Your task to perform on an android device: clear all cookies in the chrome app Image 0: 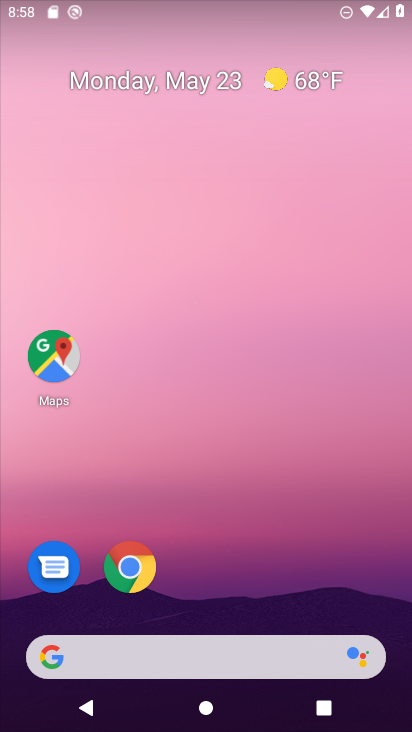
Step 0: drag from (202, 563) to (257, 21)
Your task to perform on an android device: clear all cookies in the chrome app Image 1: 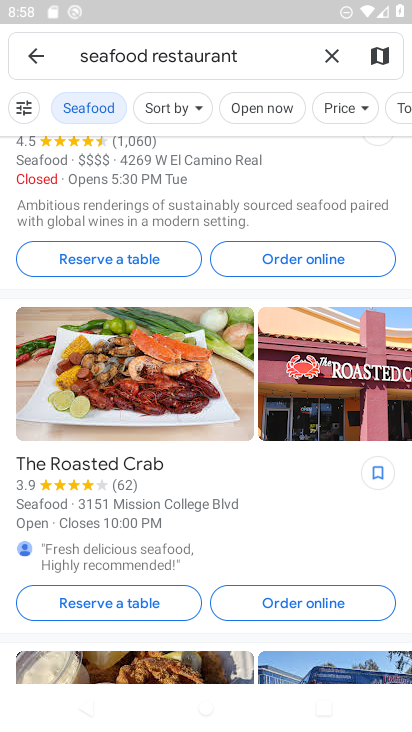
Step 1: press home button
Your task to perform on an android device: clear all cookies in the chrome app Image 2: 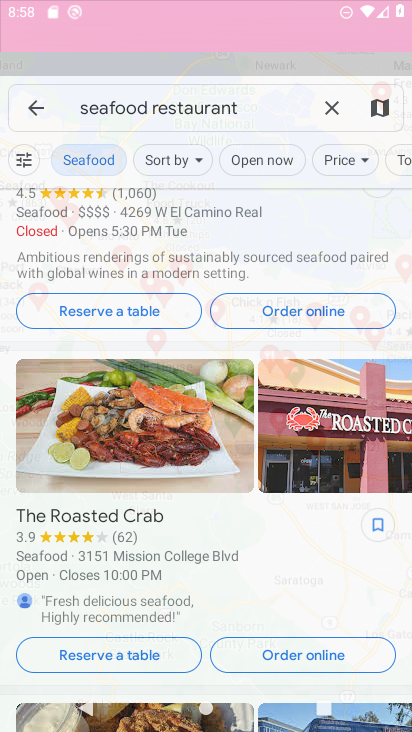
Step 2: drag from (204, 599) to (303, 1)
Your task to perform on an android device: clear all cookies in the chrome app Image 3: 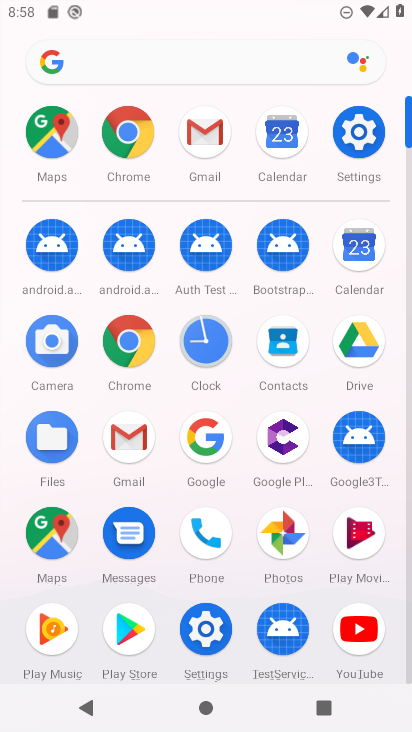
Step 3: click (126, 344)
Your task to perform on an android device: clear all cookies in the chrome app Image 4: 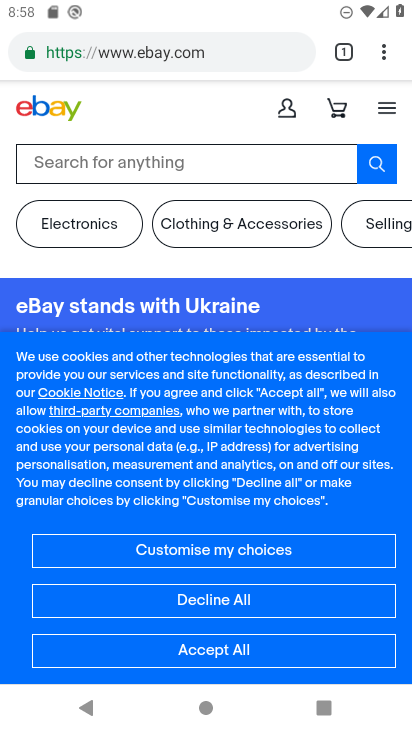
Step 4: click (382, 57)
Your task to perform on an android device: clear all cookies in the chrome app Image 5: 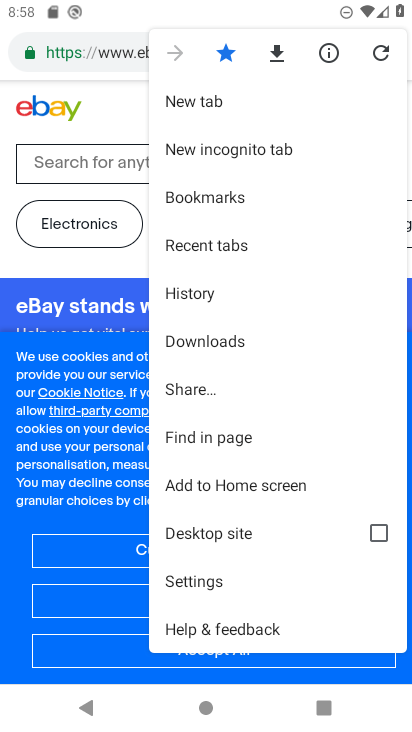
Step 5: click (209, 290)
Your task to perform on an android device: clear all cookies in the chrome app Image 6: 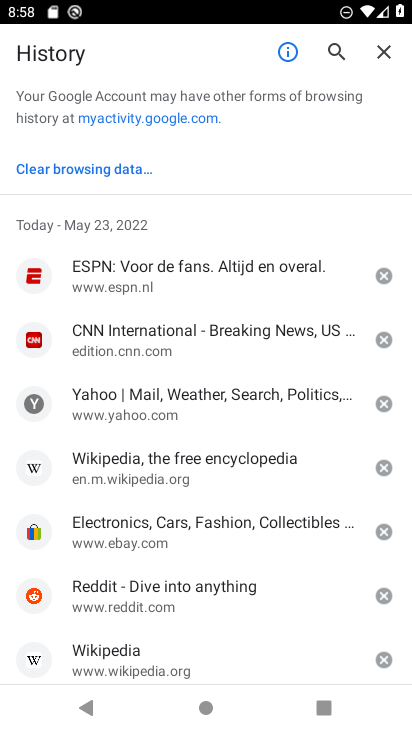
Step 6: click (99, 162)
Your task to perform on an android device: clear all cookies in the chrome app Image 7: 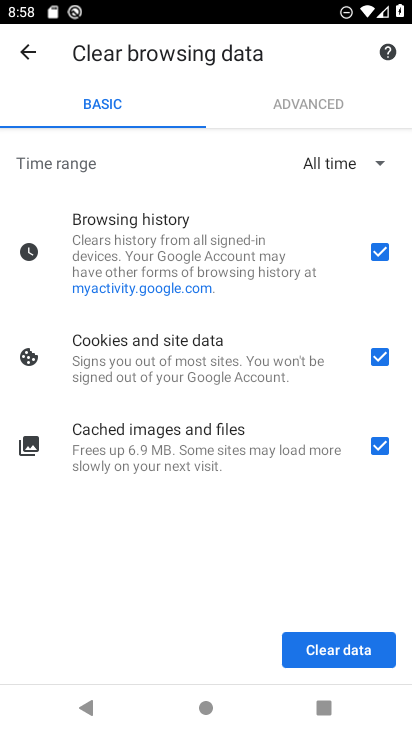
Step 7: click (376, 248)
Your task to perform on an android device: clear all cookies in the chrome app Image 8: 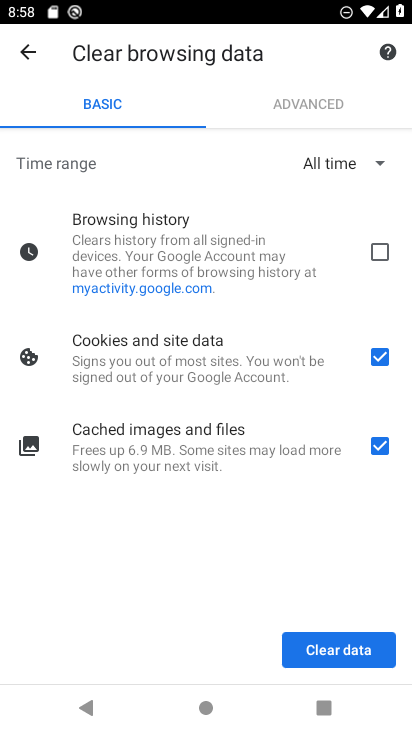
Step 8: click (305, 639)
Your task to perform on an android device: clear all cookies in the chrome app Image 9: 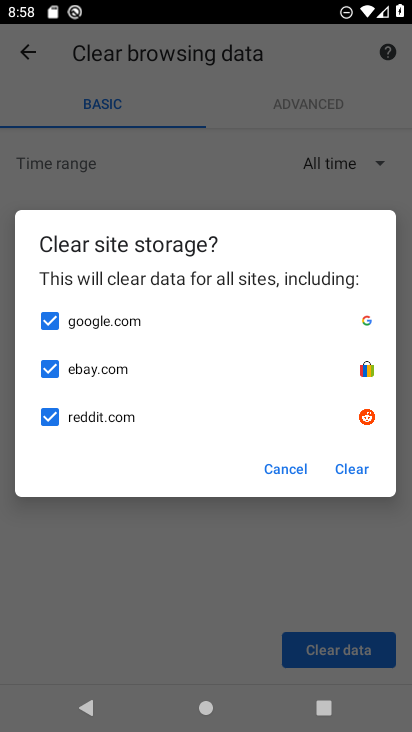
Step 9: click (354, 465)
Your task to perform on an android device: clear all cookies in the chrome app Image 10: 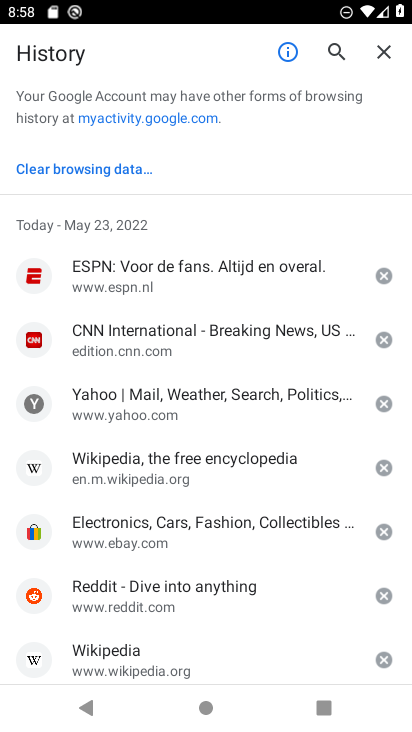
Step 10: task complete